Your task to perform on an android device: change keyboard looks Image 0: 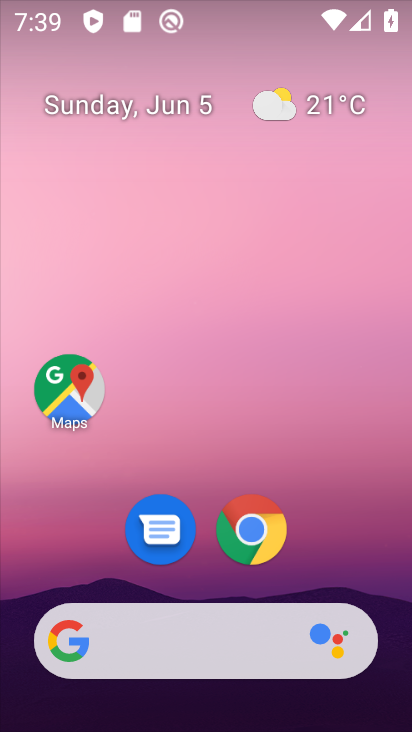
Step 0: drag from (175, 603) to (106, 56)
Your task to perform on an android device: change keyboard looks Image 1: 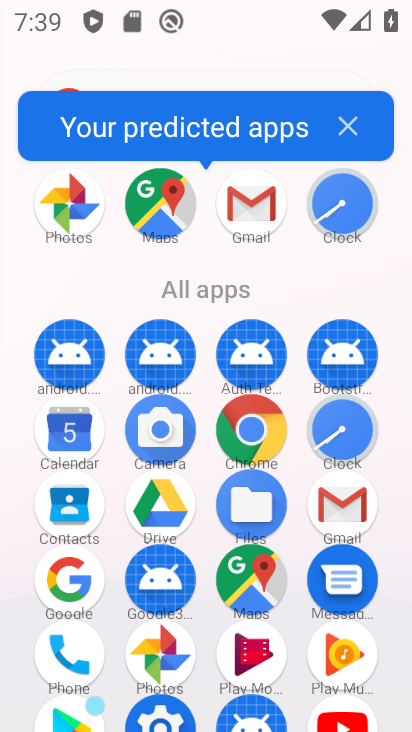
Step 1: drag from (199, 565) to (229, 54)
Your task to perform on an android device: change keyboard looks Image 2: 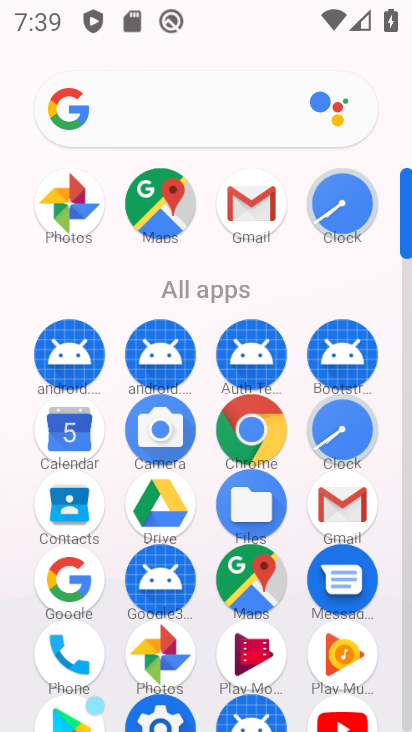
Step 2: click (174, 711)
Your task to perform on an android device: change keyboard looks Image 3: 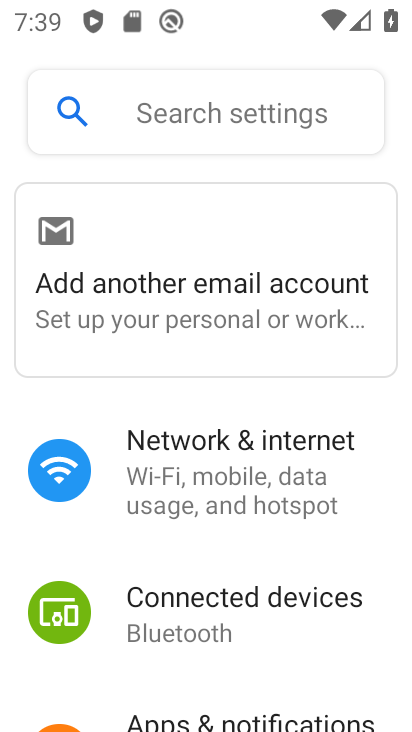
Step 3: drag from (181, 687) to (272, 104)
Your task to perform on an android device: change keyboard looks Image 4: 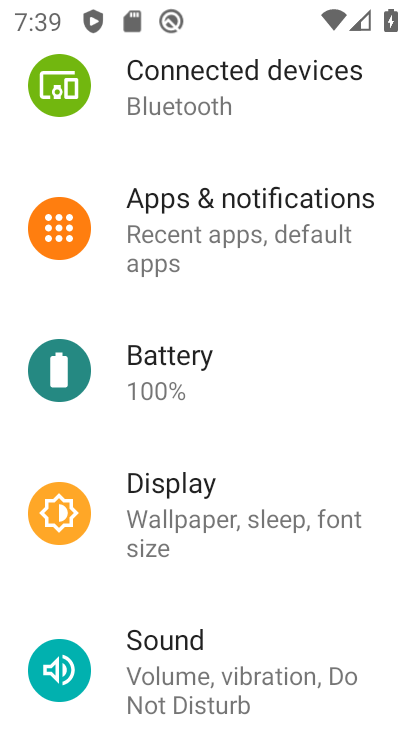
Step 4: drag from (291, 547) to (329, 51)
Your task to perform on an android device: change keyboard looks Image 5: 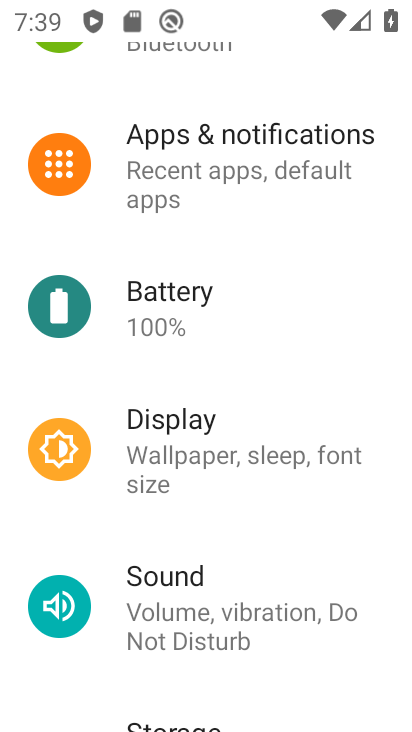
Step 5: drag from (178, 479) to (175, 3)
Your task to perform on an android device: change keyboard looks Image 6: 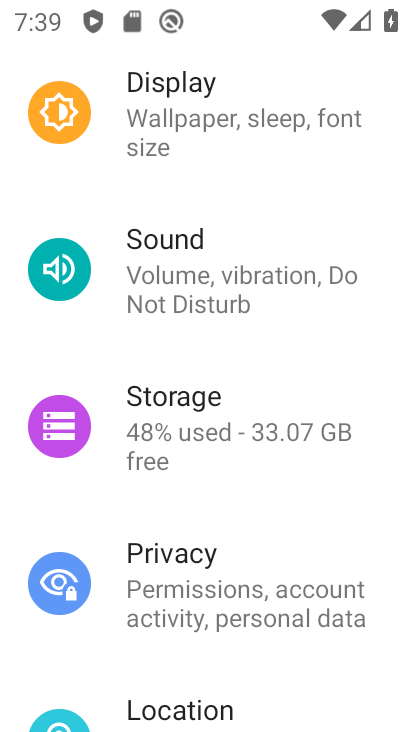
Step 6: drag from (290, 389) to (347, 32)
Your task to perform on an android device: change keyboard looks Image 7: 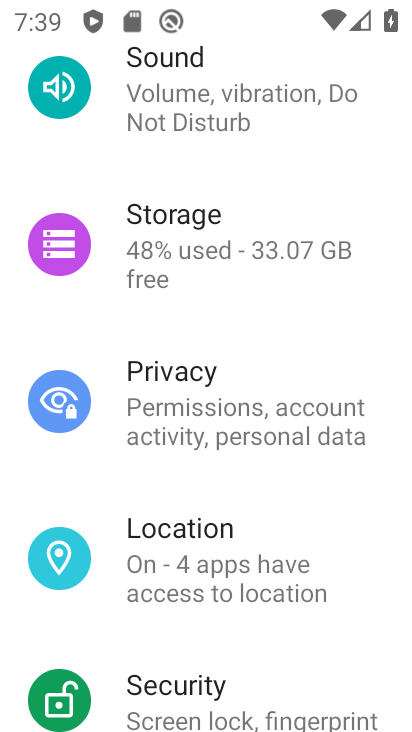
Step 7: drag from (240, 660) to (293, 50)
Your task to perform on an android device: change keyboard looks Image 8: 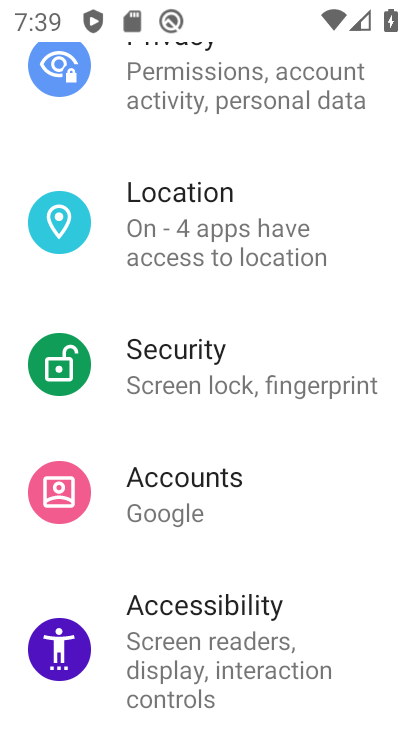
Step 8: drag from (193, 629) to (259, 15)
Your task to perform on an android device: change keyboard looks Image 9: 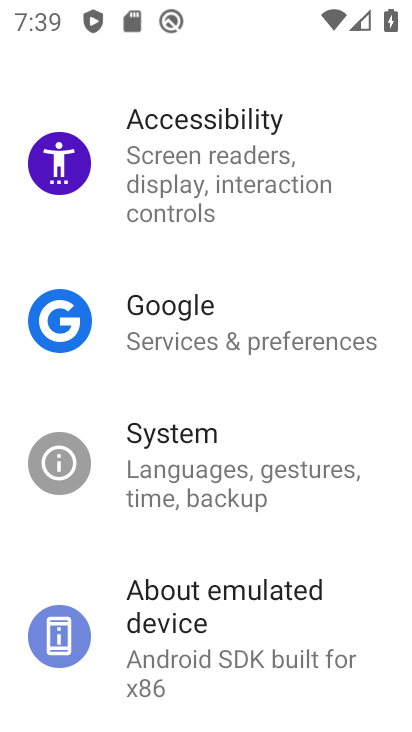
Step 9: click (223, 472)
Your task to perform on an android device: change keyboard looks Image 10: 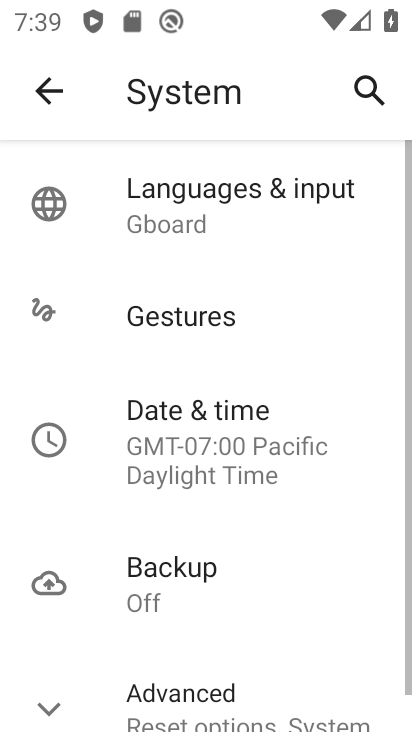
Step 10: click (202, 192)
Your task to perform on an android device: change keyboard looks Image 11: 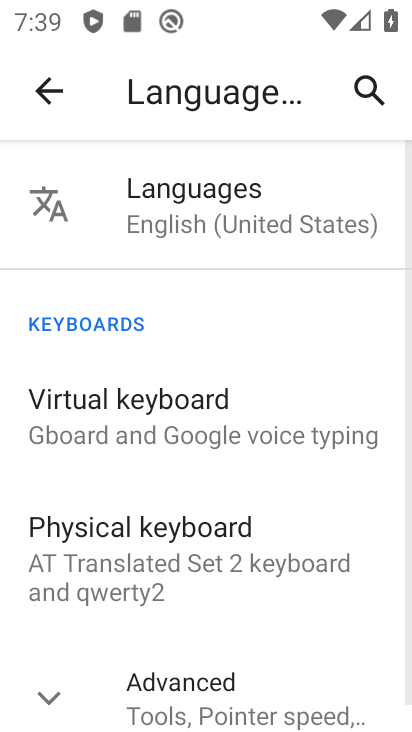
Step 11: click (135, 418)
Your task to perform on an android device: change keyboard looks Image 12: 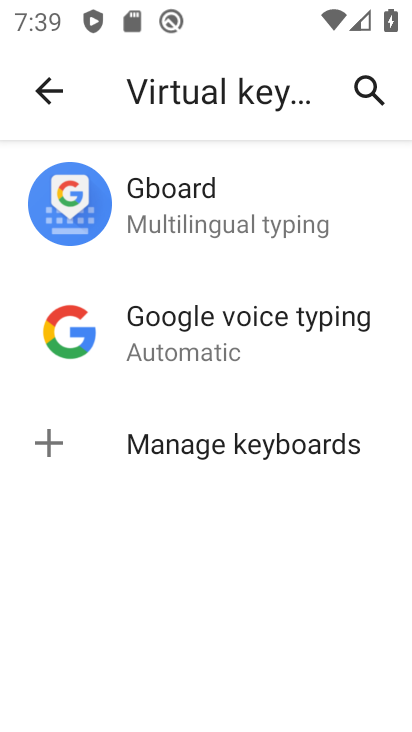
Step 12: click (225, 205)
Your task to perform on an android device: change keyboard looks Image 13: 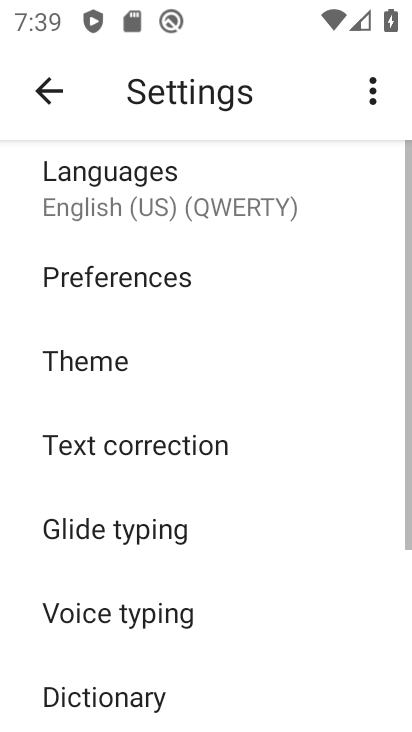
Step 13: click (77, 373)
Your task to perform on an android device: change keyboard looks Image 14: 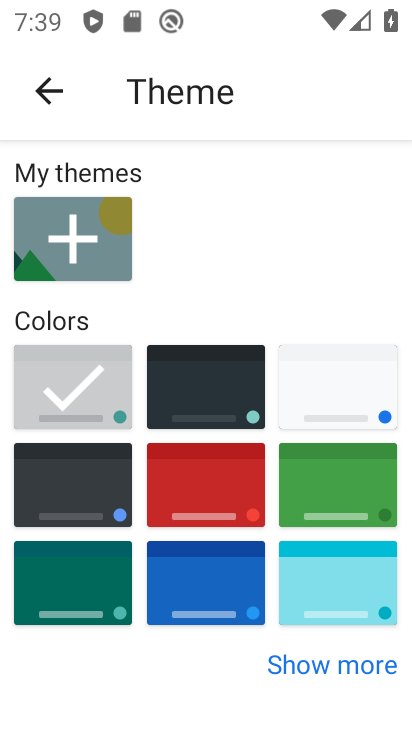
Step 14: click (208, 508)
Your task to perform on an android device: change keyboard looks Image 15: 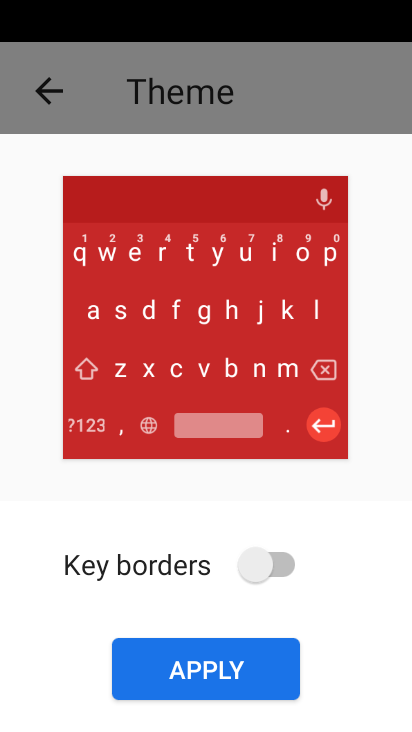
Step 15: click (217, 672)
Your task to perform on an android device: change keyboard looks Image 16: 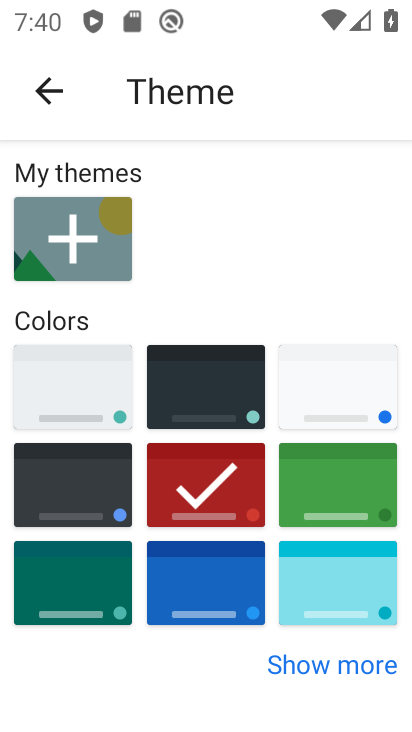
Step 16: task complete